Your task to perform on an android device: turn smart compose on in the gmail app Image 0: 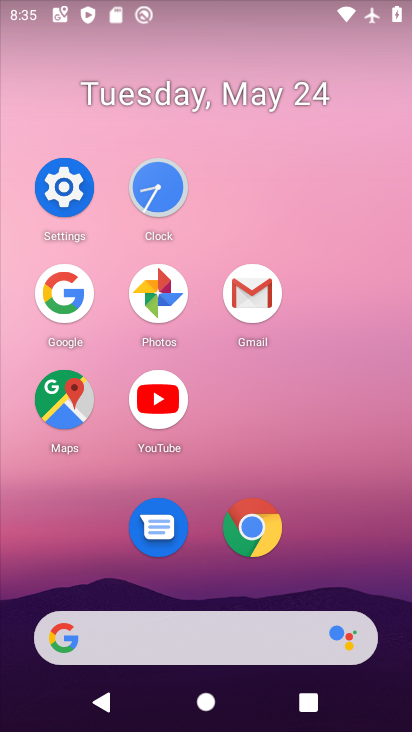
Step 0: click (236, 295)
Your task to perform on an android device: turn smart compose on in the gmail app Image 1: 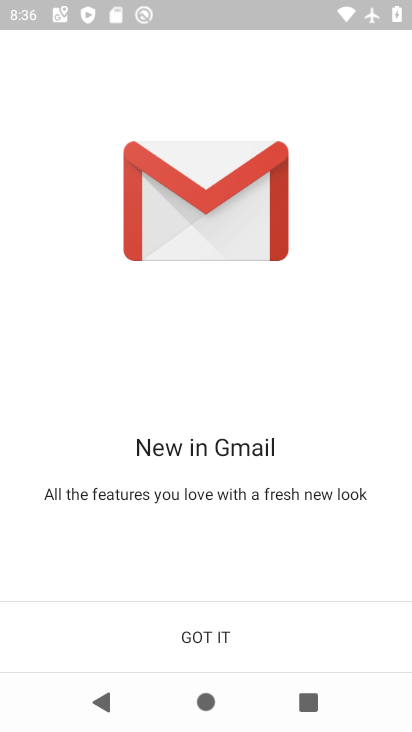
Step 1: click (194, 636)
Your task to perform on an android device: turn smart compose on in the gmail app Image 2: 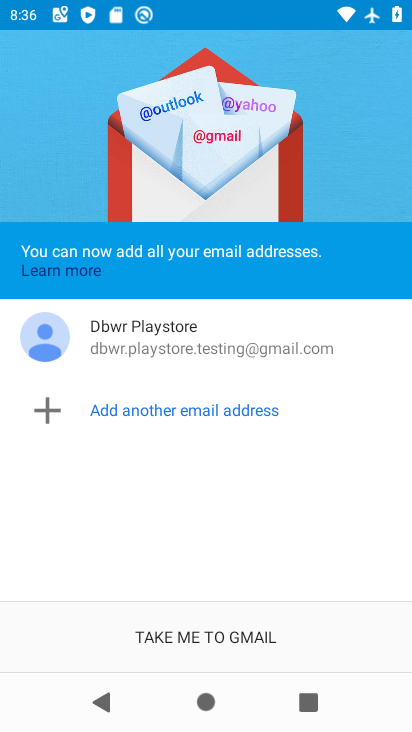
Step 2: click (207, 645)
Your task to perform on an android device: turn smart compose on in the gmail app Image 3: 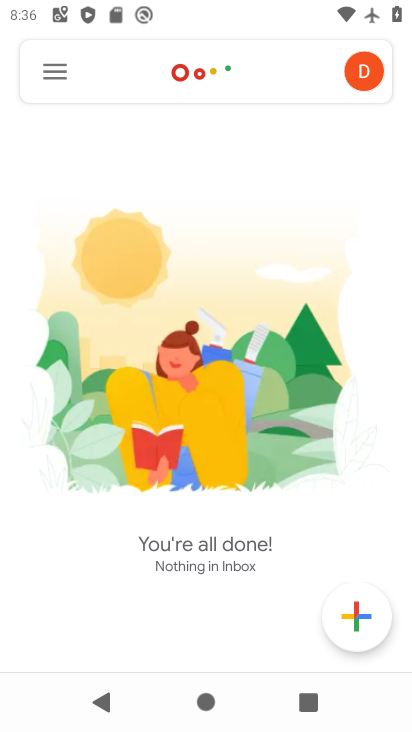
Step 3: click (64, 72)
Your task to perform on an android device: turn smart compose on in the gmail app Image 4: 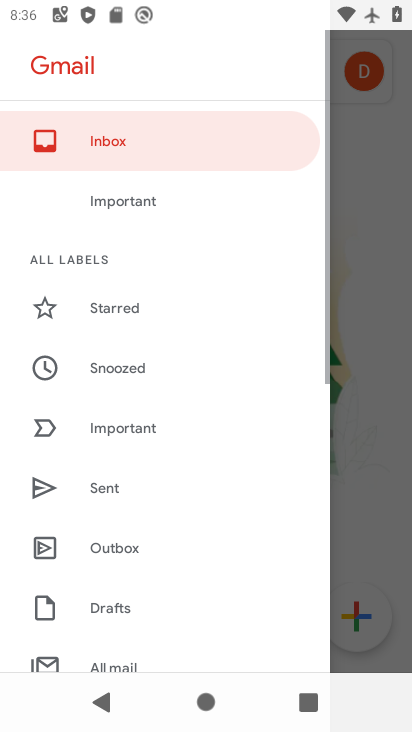
Step 4: drag from (146, 571) to (173, 221)
Your task to perform on an android device: turn smart compose on in the gmail app Image 5: 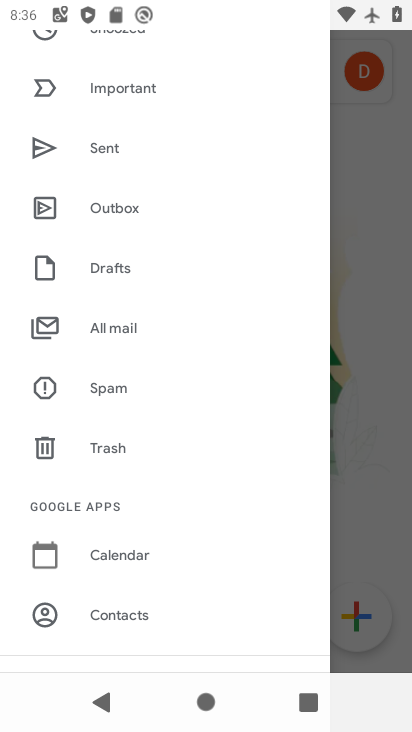
Step 5: drag from (112, 586) to (156, 255)
Your task to perform on an android device: turn smart compose on in the gmail app Image 6: 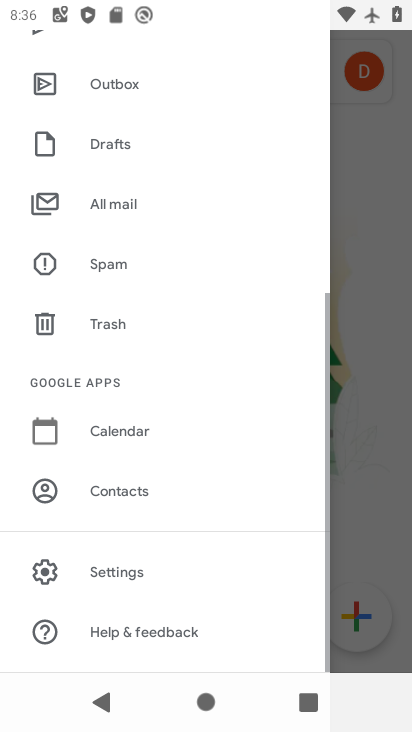
Step 6: click (99, 573)
Your task to perform on an android device: turn smart compose on in the gmail app Image 7: 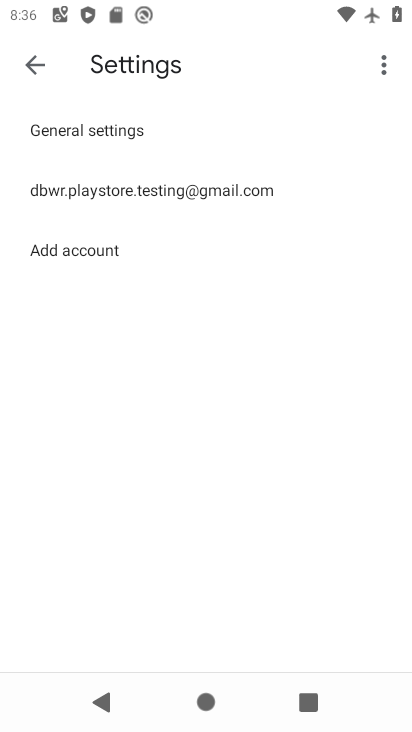
Step 7: click (191, 206)
Your task to perform on an android device: turn smart compose on in the gmail app Image 8: 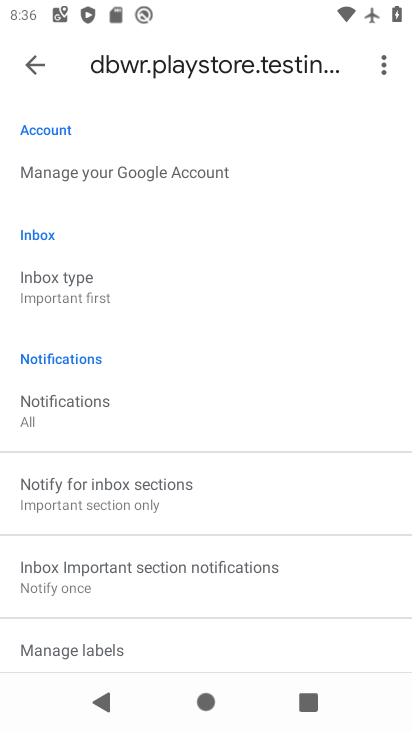
Step 8: task complete